Your task to perform on an android device: allow cookies in the chrome app Image 0: 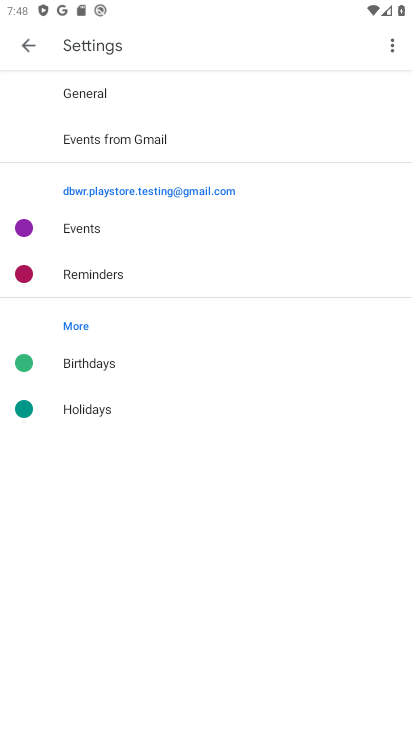
Step 0: press home button
Your task to perform on an android device: allow cookies in the chrome app Image 1: 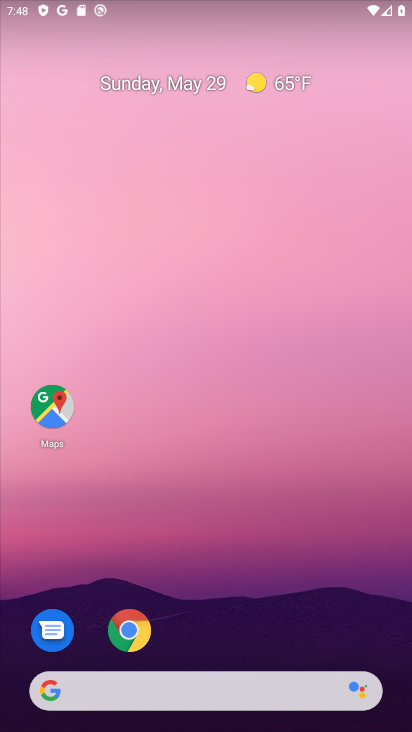
Step 1: click (133, 633)
Your task to perform on an android device: allow cookies in the chrome app Image 2: 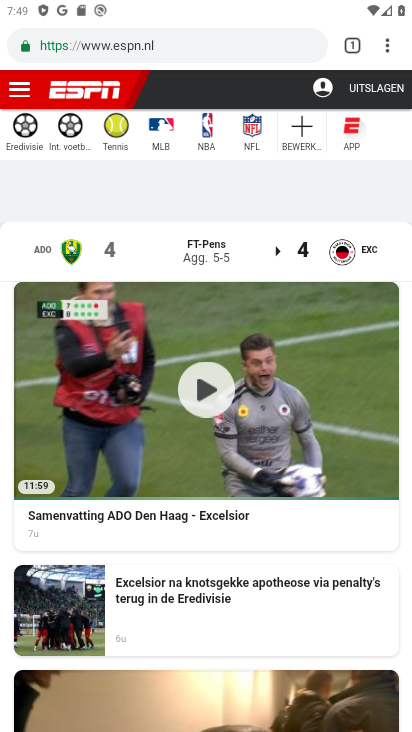
Step 2: click (390, 50)
Your task to perform on an android device: allow cookies in the chrome app Image 3: 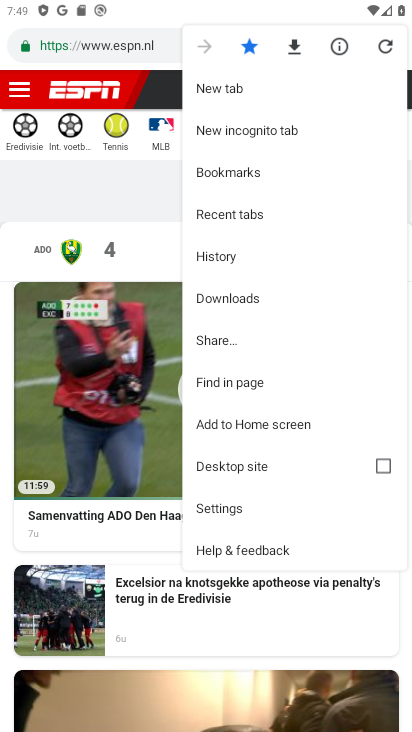
Step 3: click (221, 508)
Your task to perform on an android device: allow cookies in the chrome app Image 4: 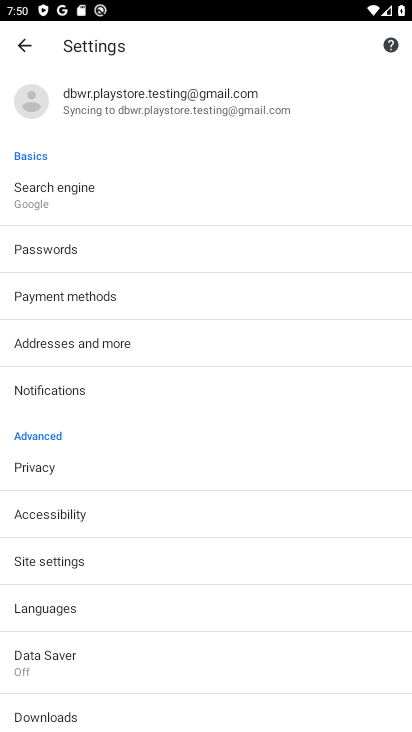
Step 4: click (74, 557)
Your task to perform on an android device: allow cookies in the chrome app Image 5: 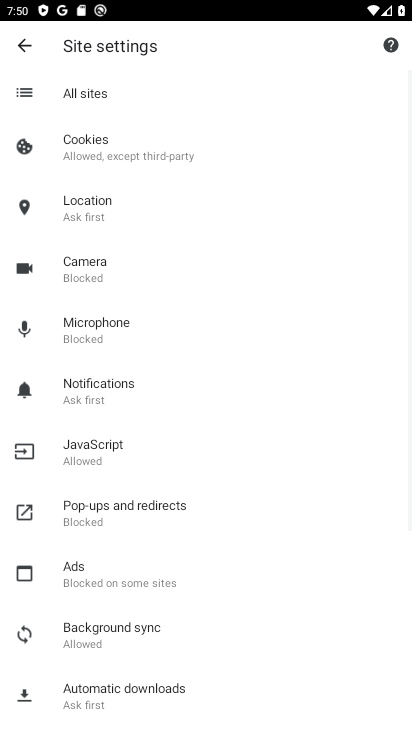
Step 5: click (102, 147)
Your task to perform on an android device: allow cookies in the chrome app Image 6: 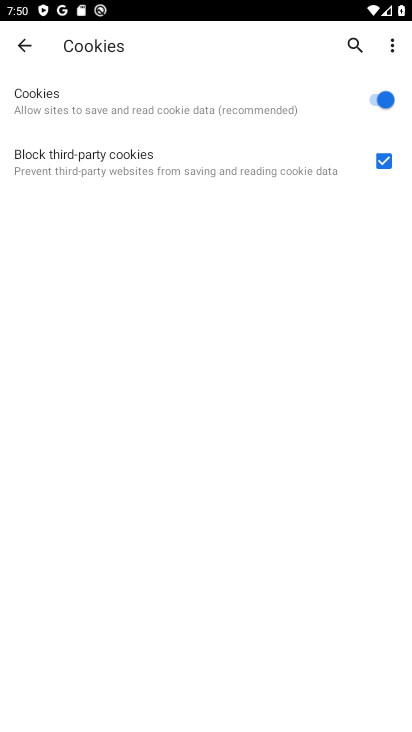
Step 6: task complete